Your task to perform on an android device: Do I have any events today? Image 0: 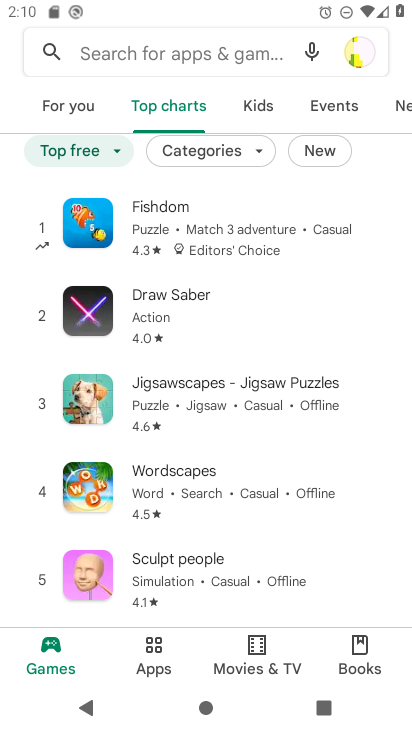
Step 0: press home button
Your task to perform on an android device: Do I have any events today? Image 1: 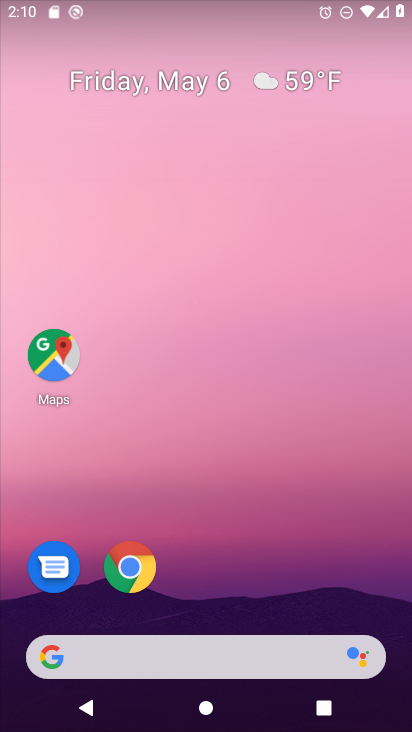
Step 1: drag from (263, 593) to (190, 47)
Your task to perform on an android device: Do I have any events today? Image 2: 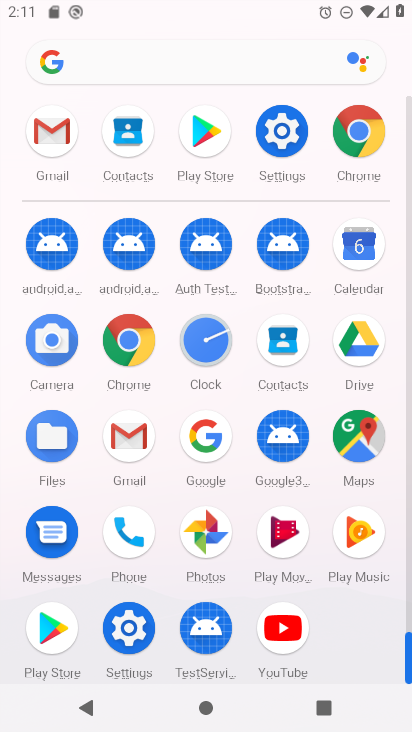
Step 2: click (362, 242)
Your task to perform on an android device: Do I have any events today? Image 3: 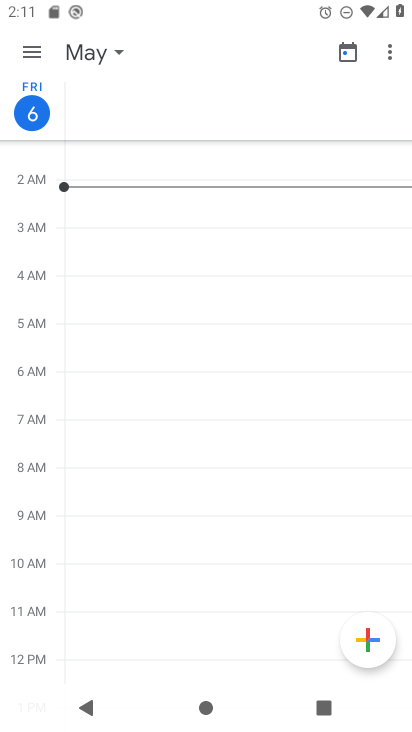
Step 3: task complete